Your task to perform on an android device: find which apps use the phone's location Image 0: 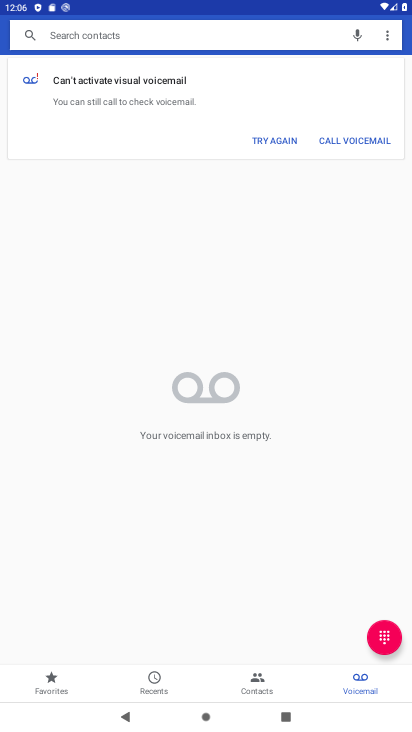
Step 0: press home button
Your task to perform on an android device: find which apps use the phone's location Image 1: 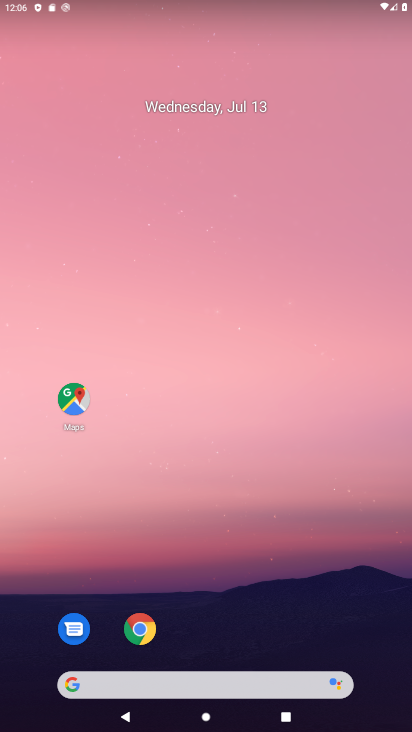
Step 1: drag from (216, 629) to (164, 152)
Your task to perform on an android device: find which apps use the phone's location Image 2: 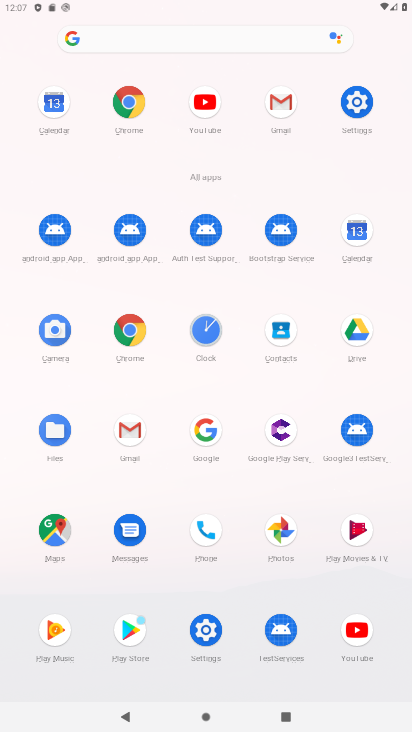
Step 2: click (331, 99)
Your task to perform on an android device: find which apps use the phone's location Image 3: 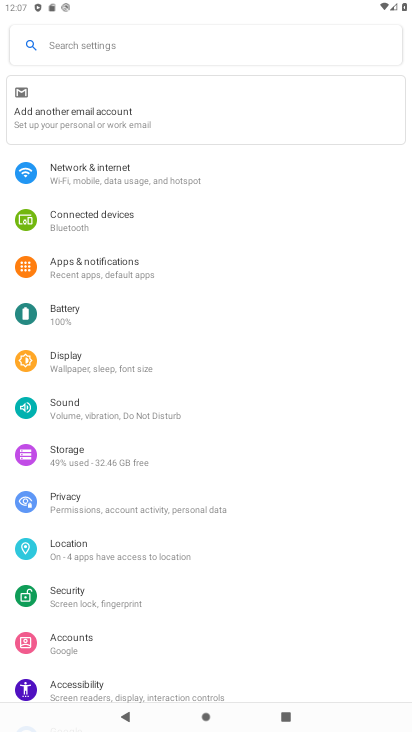
Step 3: click (89, 540)
Your task to perform on an android device: find which apps use the phone's location Image 4: 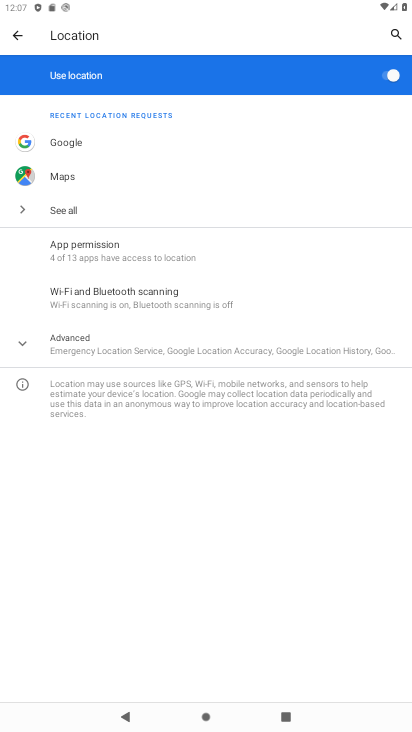
Step 4: click (86, 250)
Your task to perform on an android device: find which apps use the phone's location Image 5: 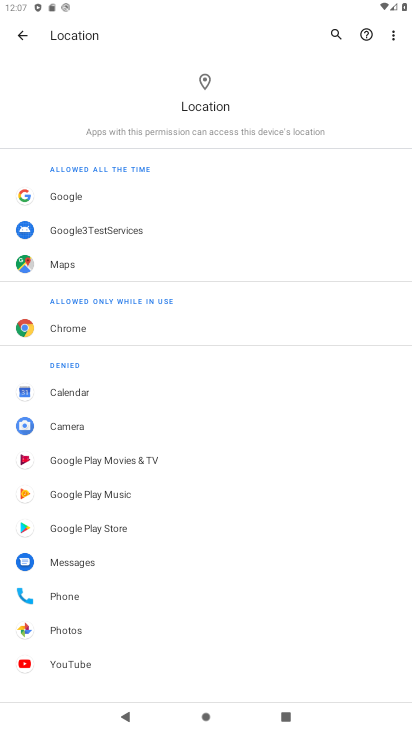
Step 5: task complete